Your task to perform on an android device: change your default location settings in chrome Image 0: 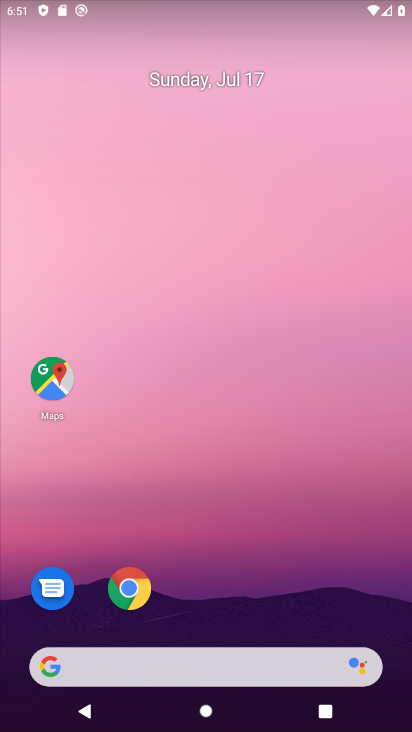
Step 0: drag from (339, 607) to (264, 28)
Your task to perform on an android device: change your default location settings in chrome Image 1: 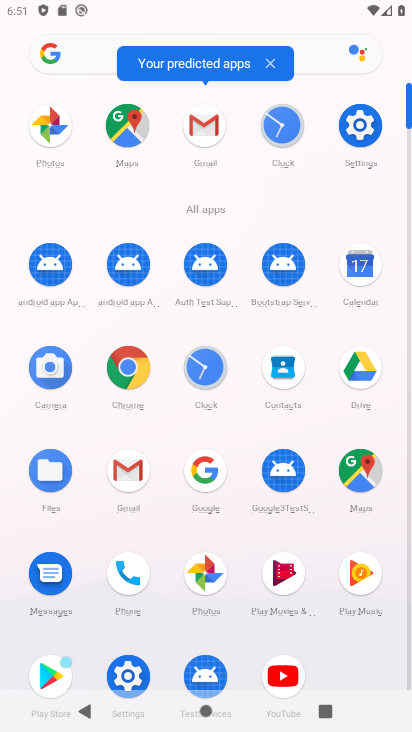
Step 1: click (119, 364)
Your task to perform on an android device: change your default location settings in chrome Image 2: 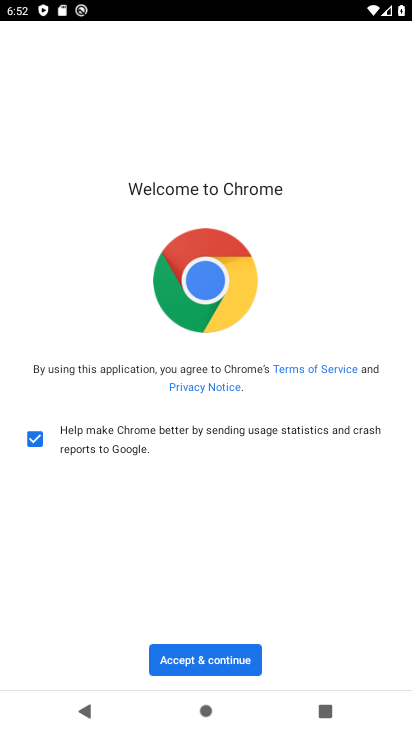
Step 2: click (159, 661)
Your task to perform on an android device: change your default location settings in chrome Image 3: 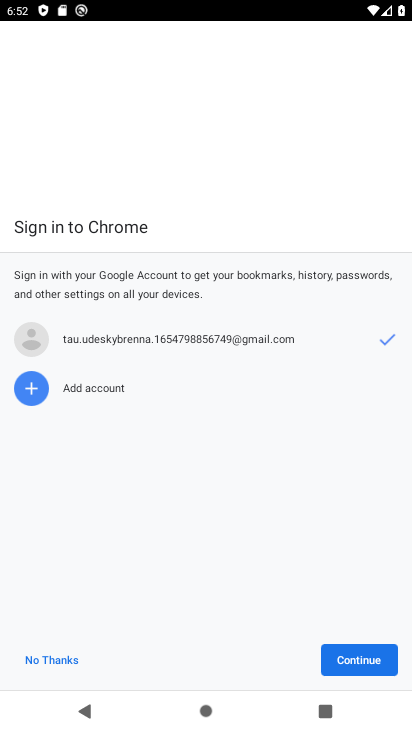
Step 3: click (342, 660)
Your task to perform on an android device: change your default location settings in chrome Image 4: 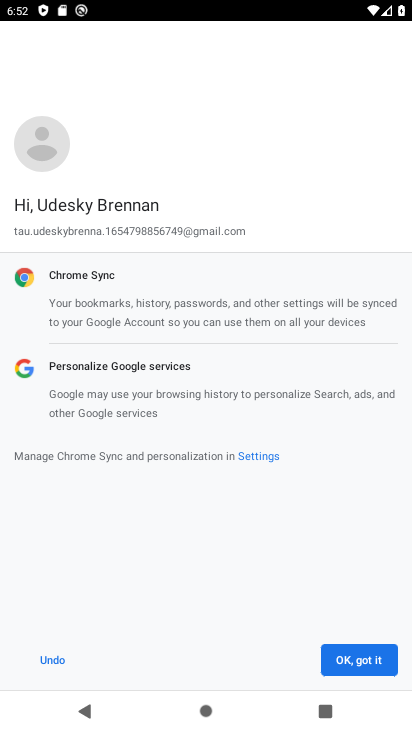
Step 4: click (342, 660)
Your task to perform on an android device: change your default location settings in chrome Image 5: 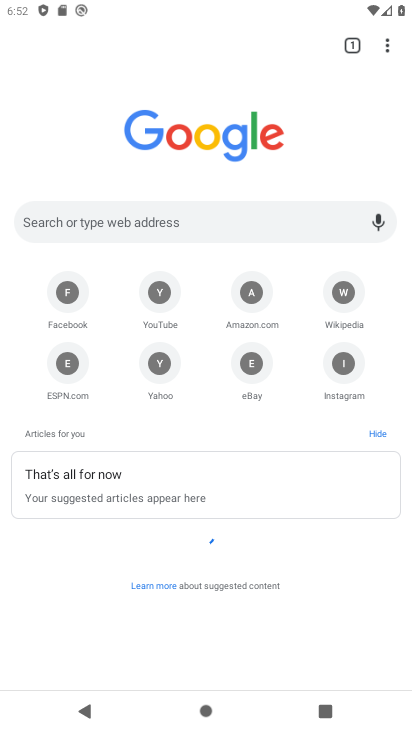
Step 5: click (385, 41)
Your task to perform on an android device: change your default location settings in chrome Image 6: 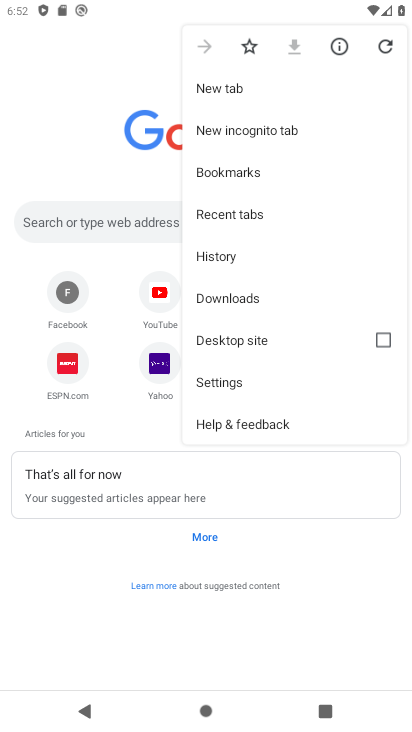
Step 6: click (232, 383)
Your task to perform on an android device: change your default location settings in chrome Image 7: 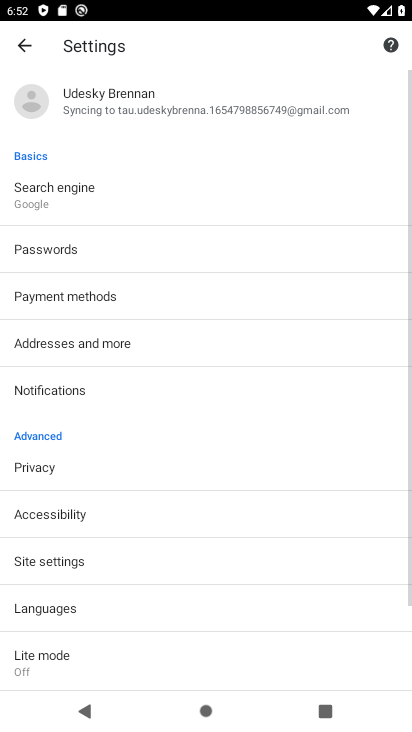
Step 7: click (88, 191)
Your task to perform on an android device: change your default location settings in chrome Image 8: 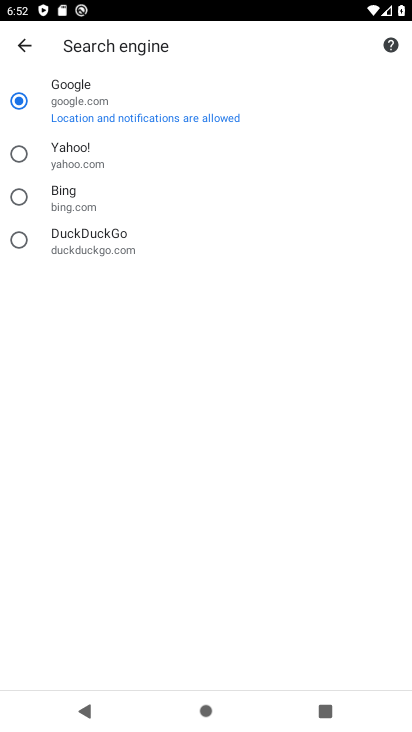
Step 8: click (58, 194)
Your task to perform on an android device: change your default location settings in chrome Image 9: 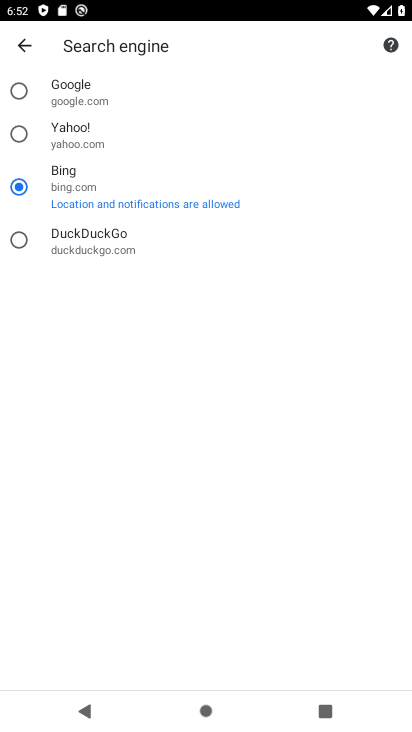
Step 9: task complete